Your task to perform on an android device: Open the calendar and show me this week's events? Image 0: 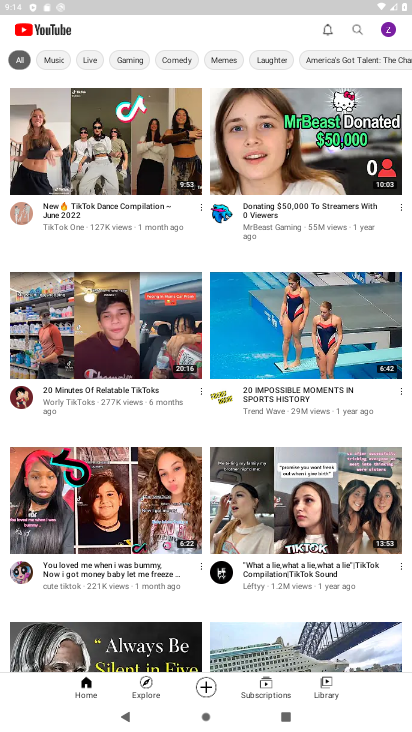
Step 0: press home button
Your task to perform on an android device: Open the calendar and show me this week's events? Image 1: 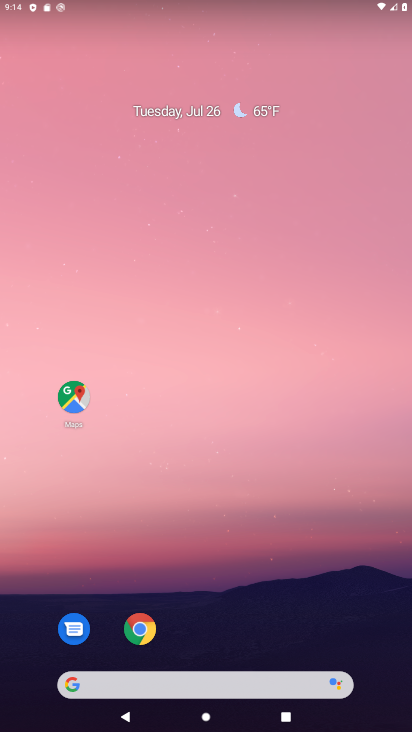
Step 1: drag from (229, 594) to (218, 71)
Your task to perform on an android device: Open the calendar and show me this week's events? Image 2: 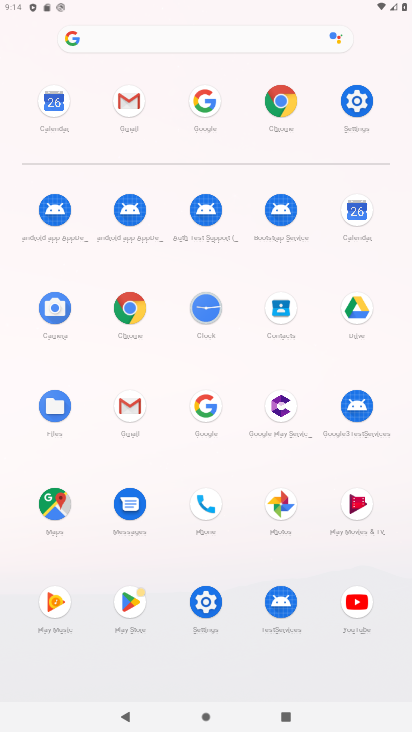
Step 2: click (359, 218)
Your task to perform on an android device: Open the calendar and show me this week's events? Image 3: 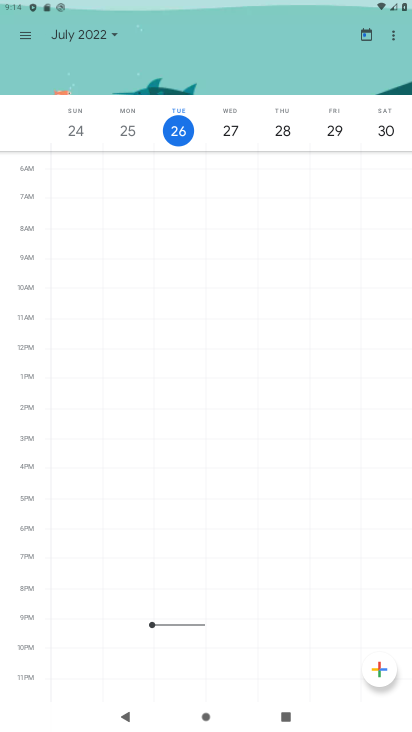
Step 3: click (31, 33)
Your task to perform on an android device: Open the calendar and show me this week's events? Image 4: 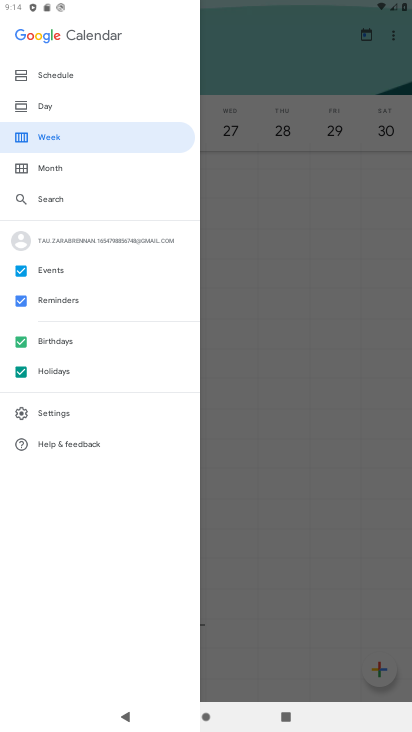
Step 4: click (50, 137)
Your task to perform on an android device: Open the calendar and show me this week's events? Image 5: 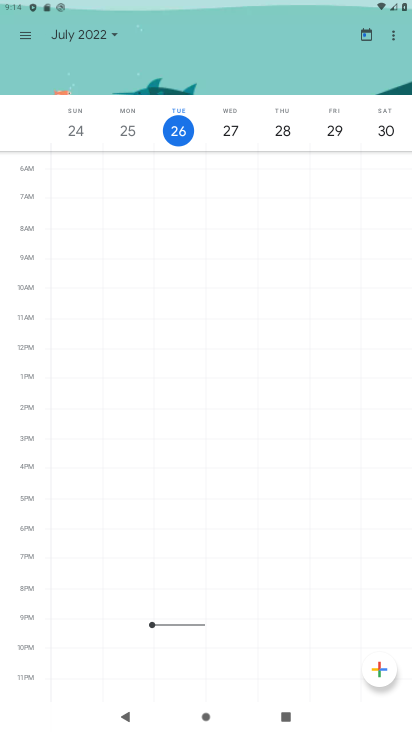
Step 5: click (173, 130)
Your task to perform on an android device: Open the calendar and show me this week's events? Image 6: 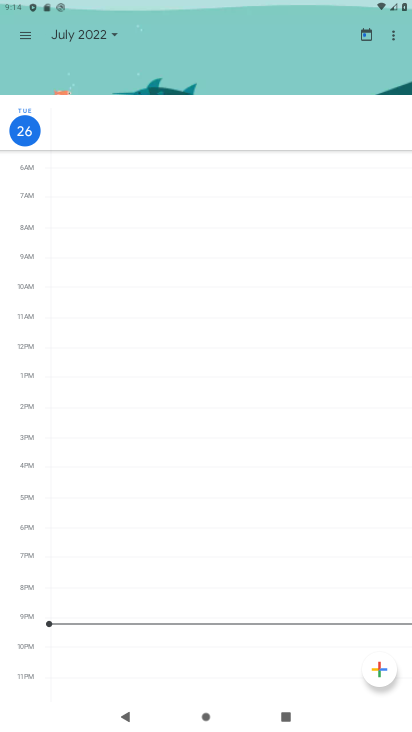
Step 6: click (30, 42)
Your task to perform on an android device: Open the calendar and show me this week's events? Image 7: 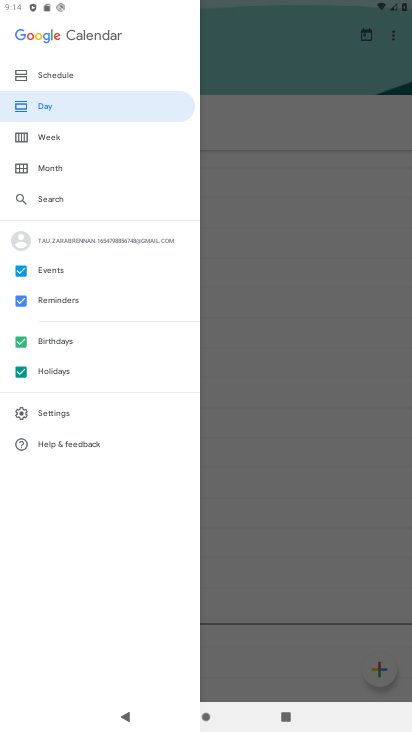
Step 7: click (51, 138)
Your task to perform on an android device: Open the calendar and show me this week's events? Image 8: 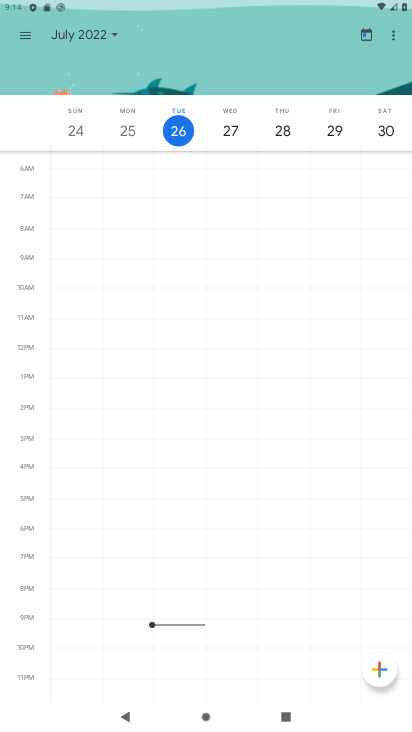
Step 8: task complete